Your task to perform on an android device: turn on priority inbox in the gmail app Image 0: 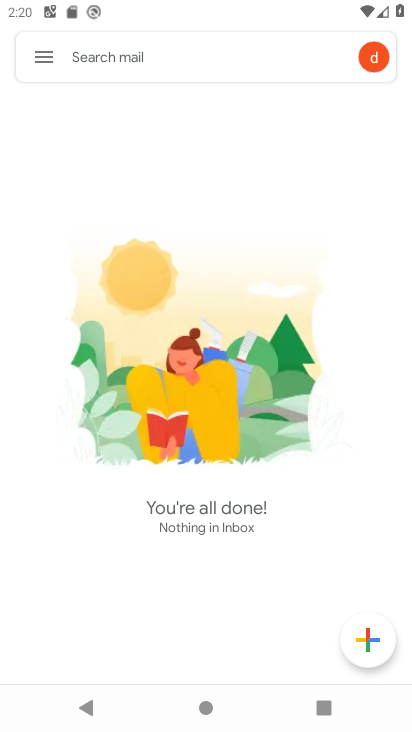
Step 0: click (39, 53)
Your task to perform on an android device: turn on priority inbox in the gmail app Image 1: 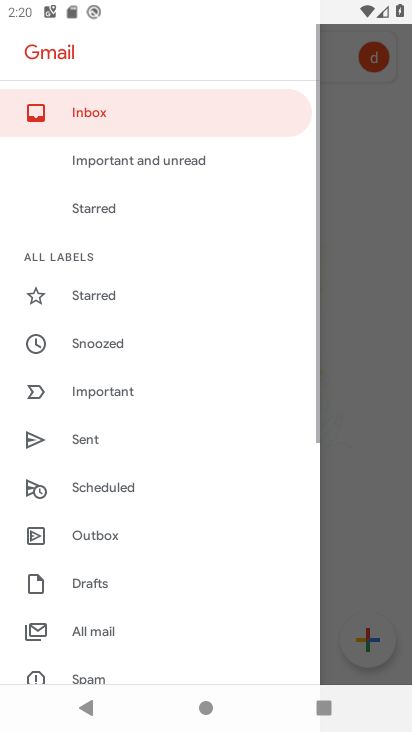
Step 1: drag from (96, 606) to (188, 214)
Your task to perform on an android device: turn on priority inbox in the gmail app Image 2: 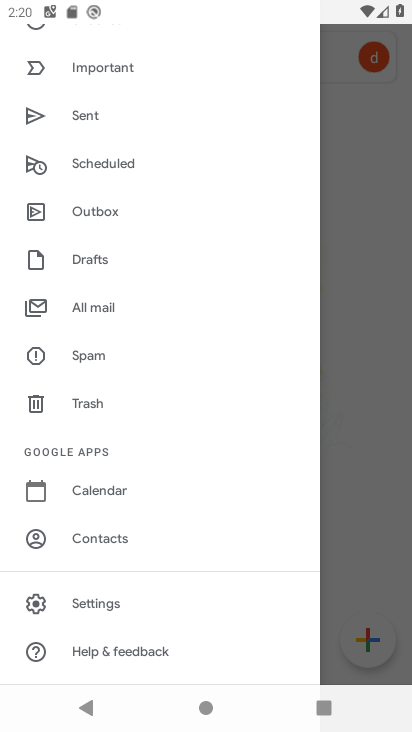
Step 2: drag from (144, 629) to (154, 594)
Your task to perform on an android device: turn on priority inbox in the gmail app Image 3: 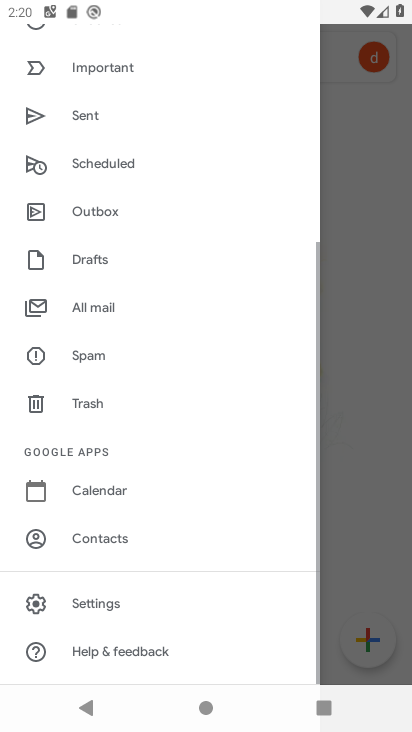
Step 3: click (146, 598)
Your task to perform on an android device: turn on priority inbox in the gmail app Image 4: 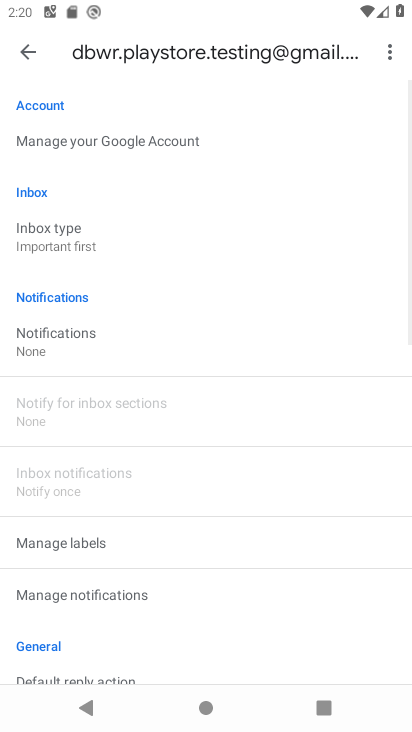
Step 4: click (102, 237)
Your task to perform on an android device: turn on priority inbox in the gmail app Image 5: 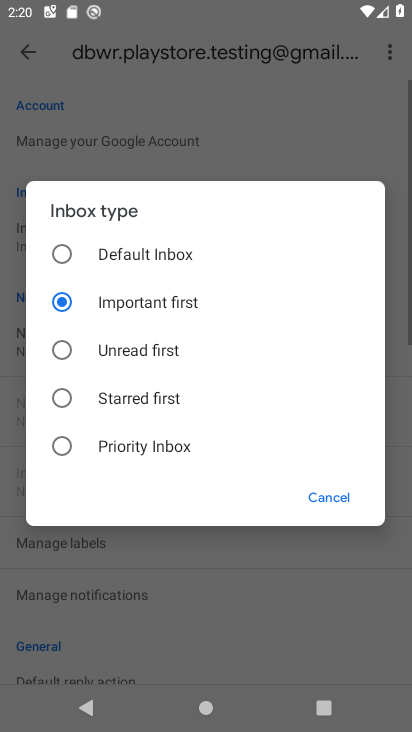
Step 5: click (118, 242)
Your task to perform on an android device: turn on priority inbox in the gmail app Image 6: 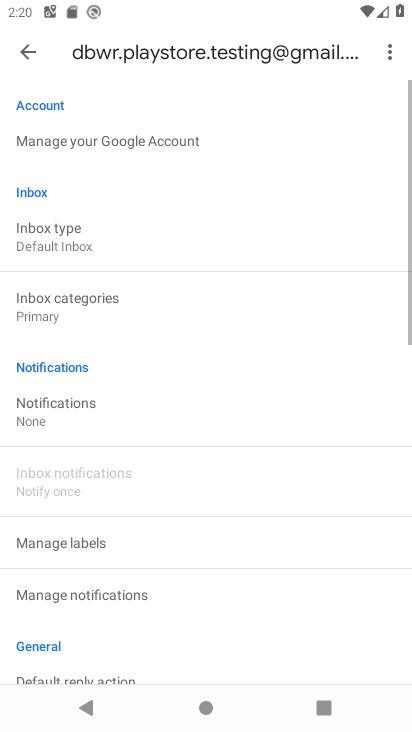
Step 6: click (37, 252)
Your task to perform on an android device: turn on priority inbox in the gmail app Image 7: 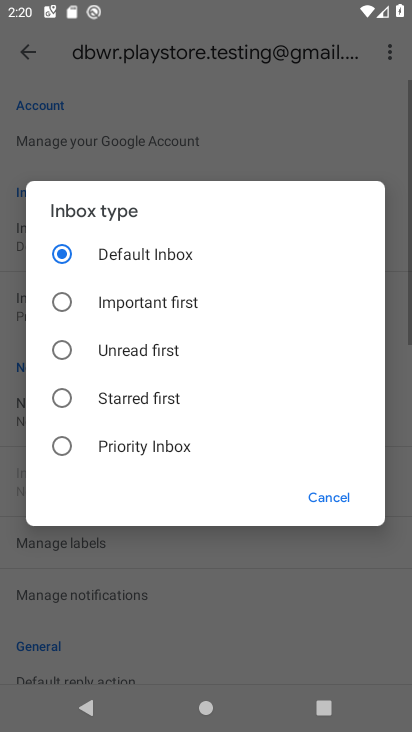
Step 7: click (87, 452)
Your task to perform on an android device: turn on priority inbox in the gmail app Image 8: 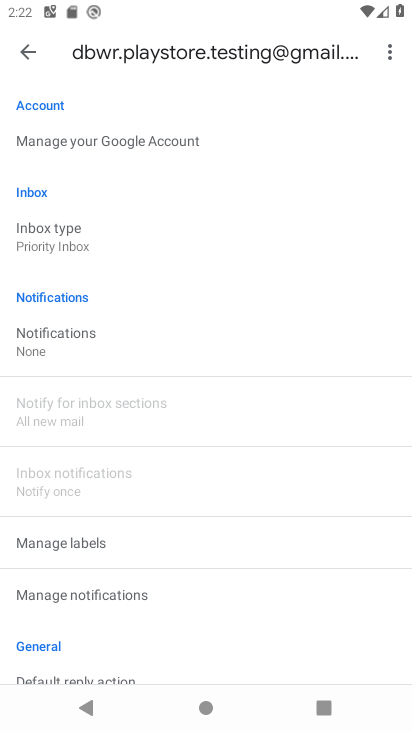
Step 8: task complete